Your task to perform on an android device: Go to battery settings Image 0: 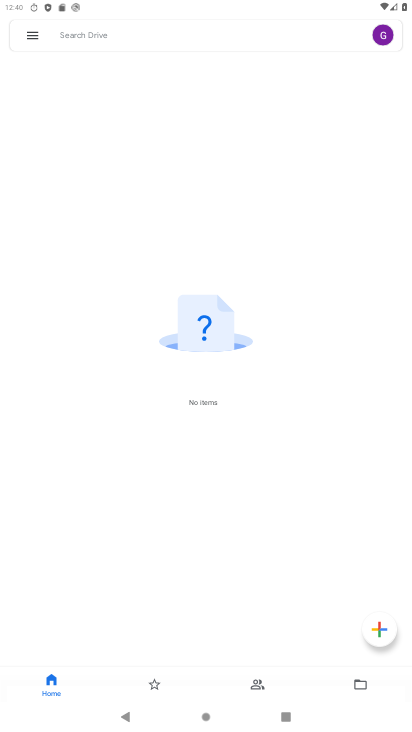
Step 0: press home button
Your task to perform on an android device: Go to battery settings Image 1: 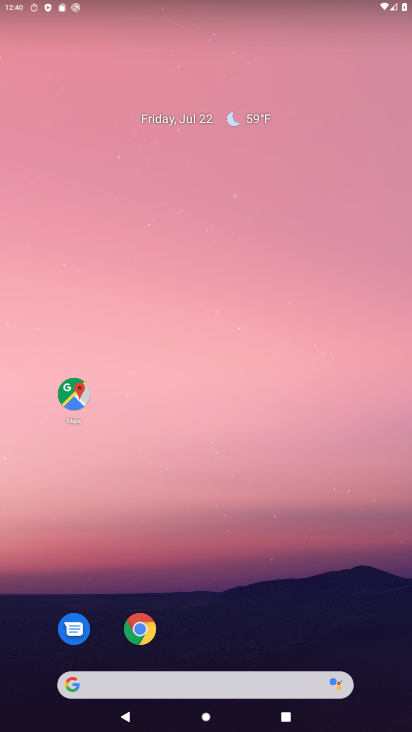
Step 1: drag from (332, 685) to (411, 32)
Your task to perform on an android device: Go to battery settings Image 2: 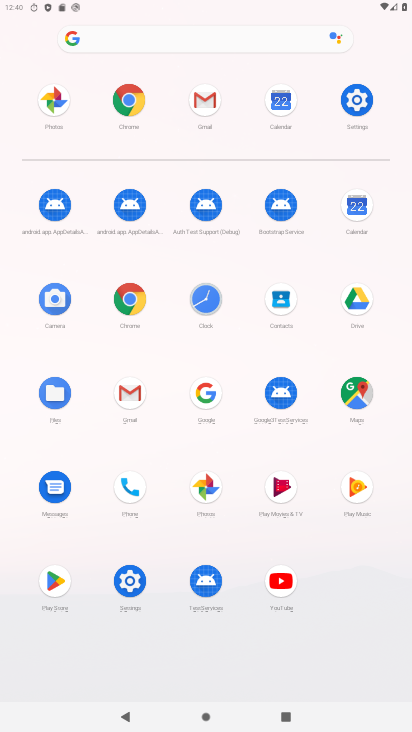
Step 2: click (362, 91)
Your task to perform on an android device: Go to battery settings Image 3: 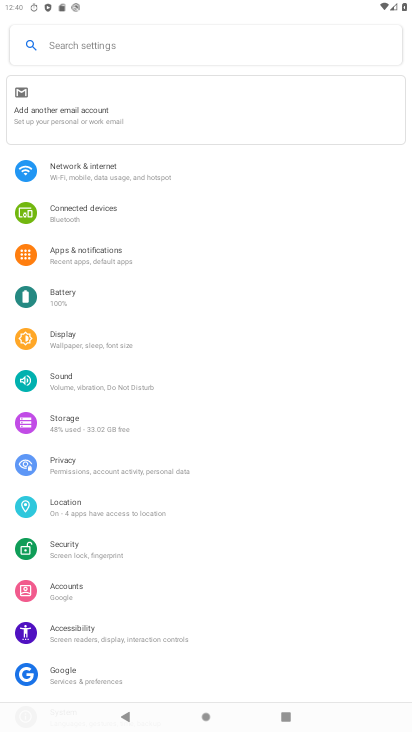
Step 3: click (76, 298)
Your task to perform on an android device: Go to battery settings Image 4: 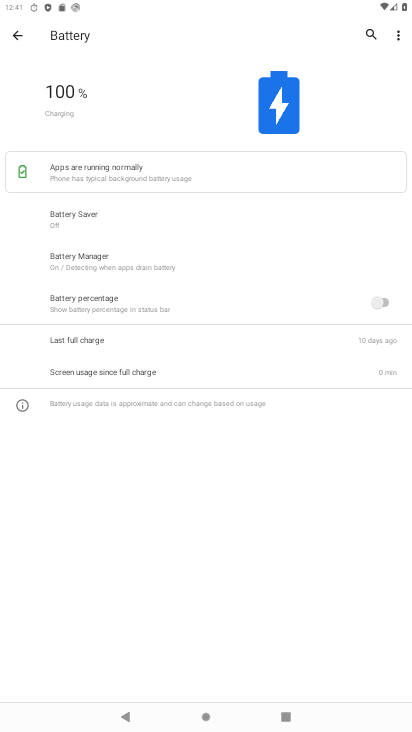
Step 4: task complete